Your task to perform on an android device: turn off smart reply in the gmail app Image 0: 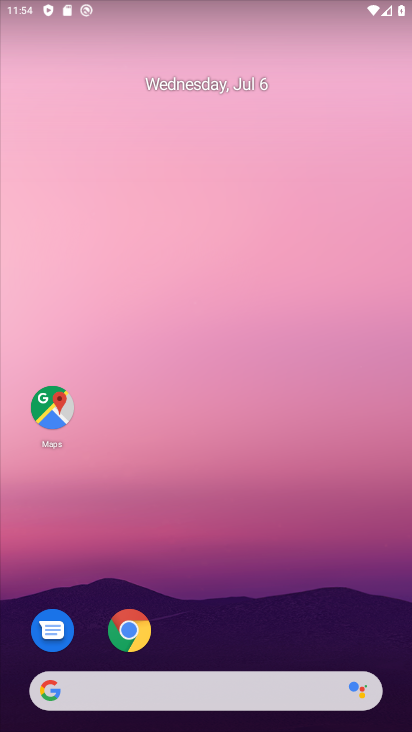
Step 0: drag from (177, 43) to (387, 53)
Your task to perform on an android device: turn off smart reply in the gmail app Image 1: 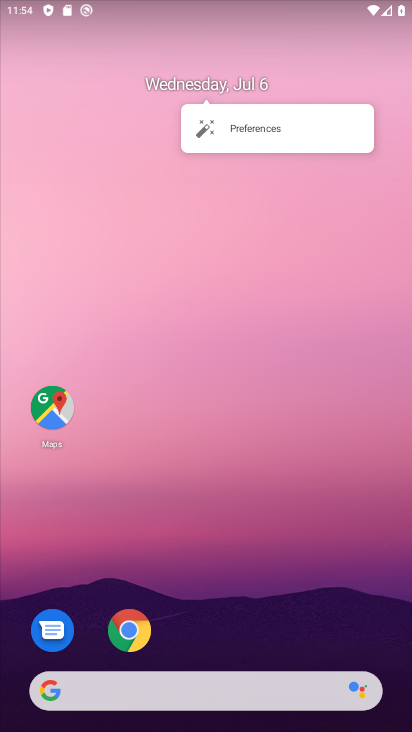
Step 1: click (258, 315)
Your task to perform on an android device: turn off smart reply in the gmail app Image 2: 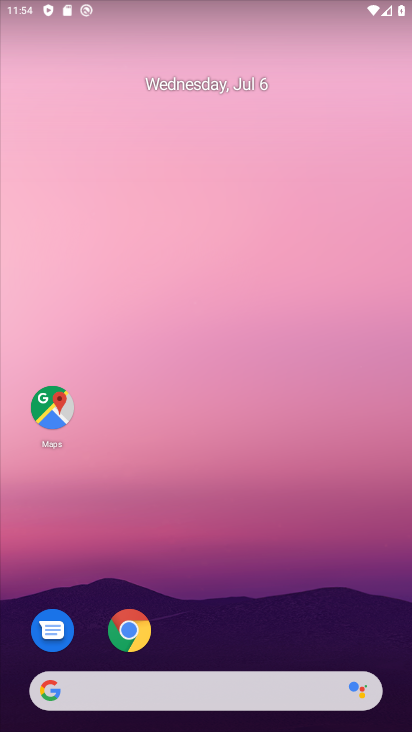
Step 2: drag from (164, 164) to (159, 94)
Your task to perform on an android device: turn off smart reply in the gmail app Image 3: 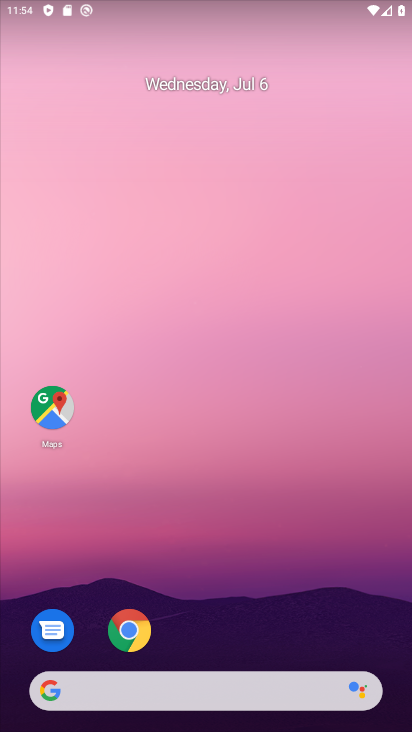
Step 3: drag from (219, 616) to (205, 3)
Your task to perform on an android device: turn off smart reply in the gmail app Image 4: 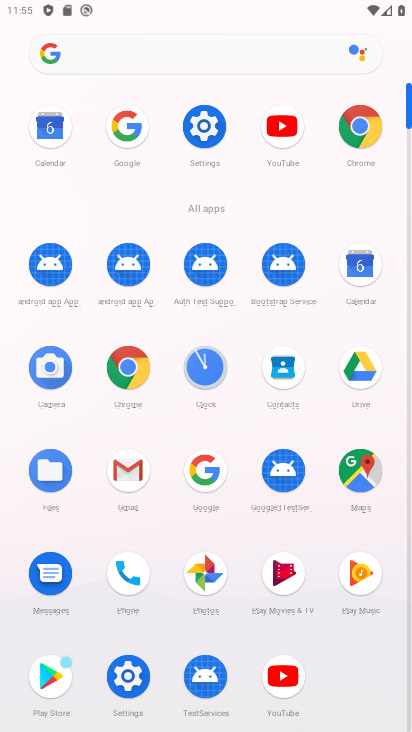
Step 4: click (125, 484)
Your task to perform on an android device: turn off smart reply in the gmail app Image 5: 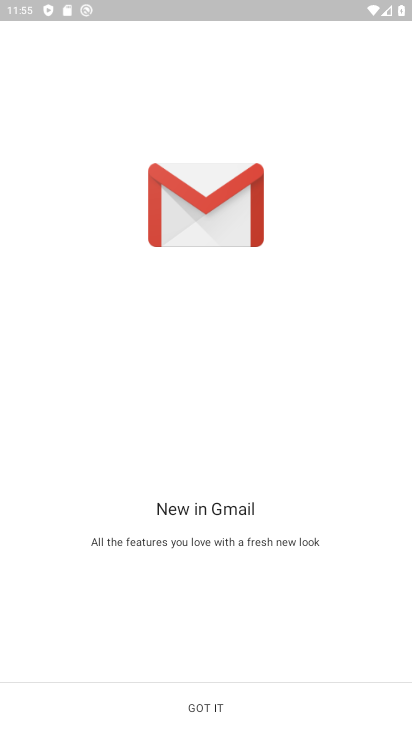
Step 5: click (200, 704)
Your task to perform on an android device: turn off smart reply in the gmail app Image 6: 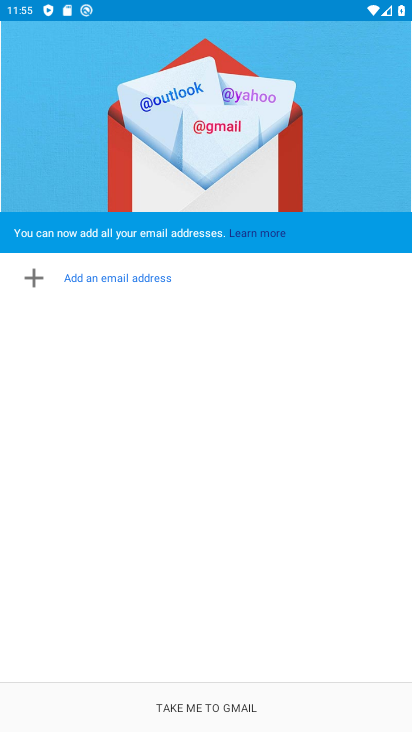
Step 6: click (197, 703)
Your task to perform on an android device: turn off smart reply in the gmail app Image 7: 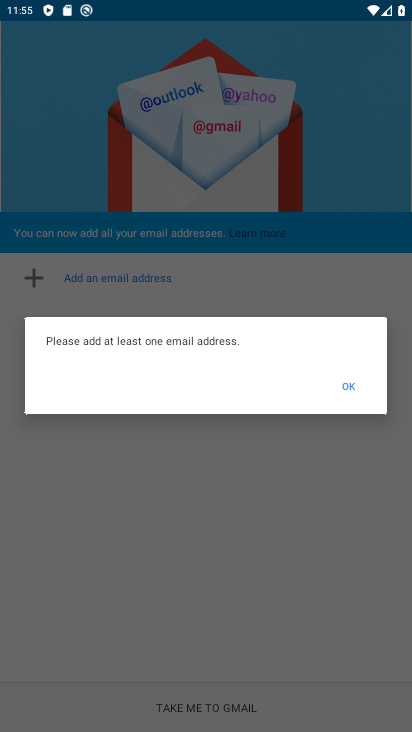
Step 7: click (350, 391)
Your task to perform on an android device: turn off smart reply in the gmail app Image 8: 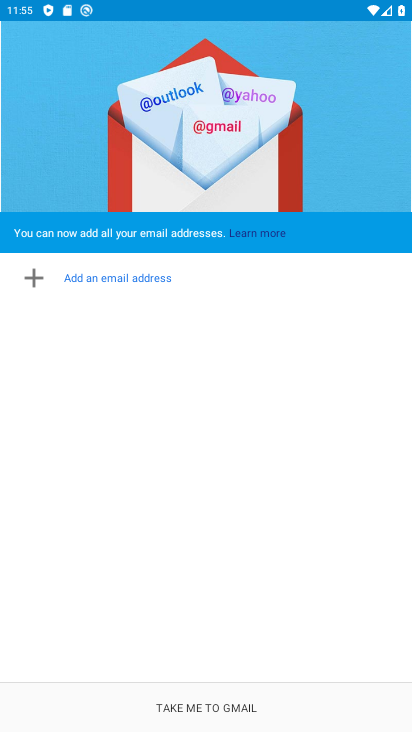
Step 8: click (214, 701)
Your task to perform on an android device: turn off smart reply in the gmail app Image 9: 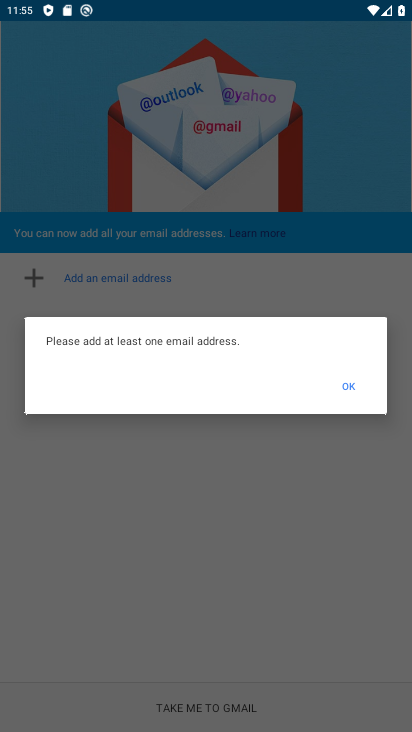
Step 9: click (358, 397)
Your task to perform on an android device: turn off smart reply in the gmail app Image 10: 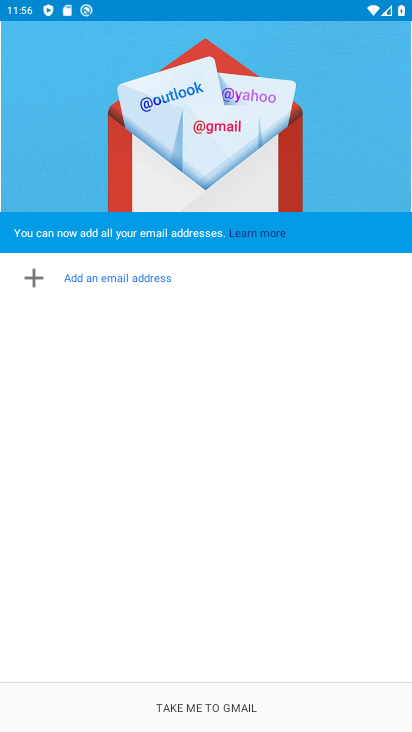
Step 10: task complete